Your task to perform on an android device: Show me popular videos on Youtube Image 0: 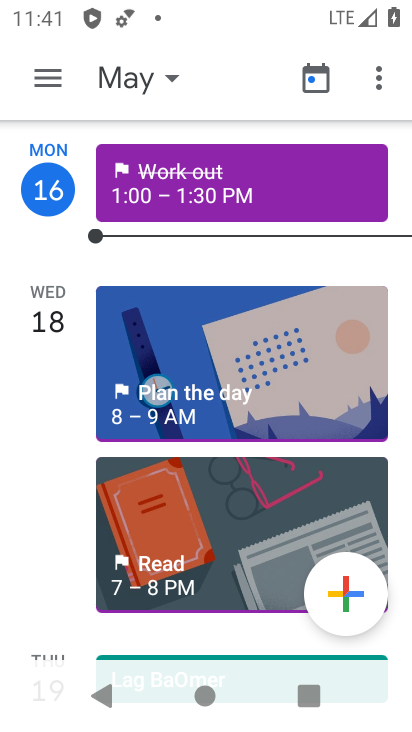
Step 0: press home button
Your task to perform on an android device: Show me popular videos on Youtube Image 1: 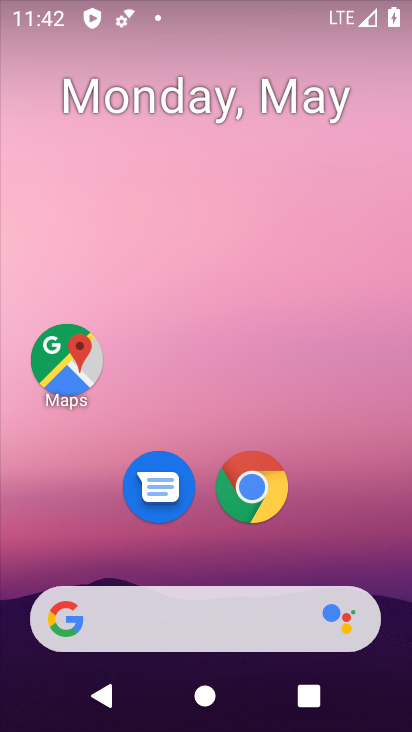
Step 1: drag from (84, 718) to (212, 120)
Your task to perform on an android device: Show me popular videos on Youtube Image 2: 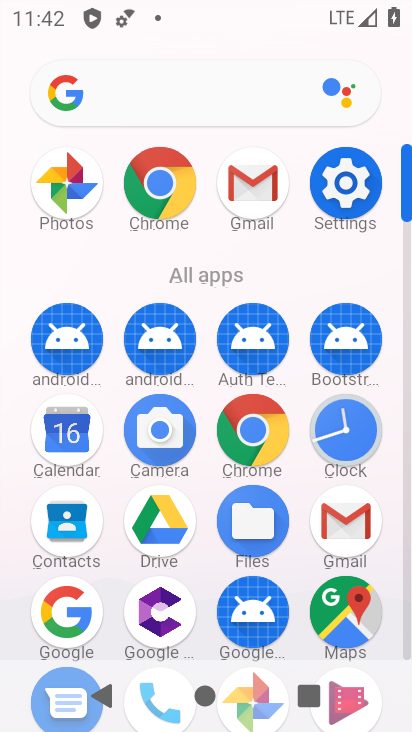
Step 2: drag from (8, 692) to (208, 114)
Your task to perform on an android device: Show me popular videos on Youtube Image 3: 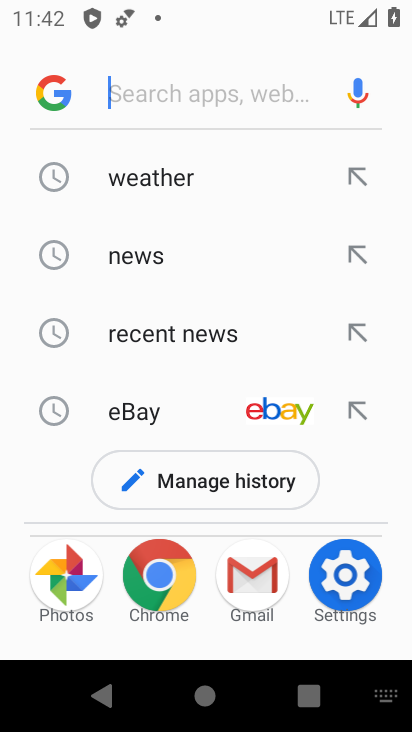
Step 3: press home button
Your task to perform on an android device: Show me popular videos on Youtube Image 4: 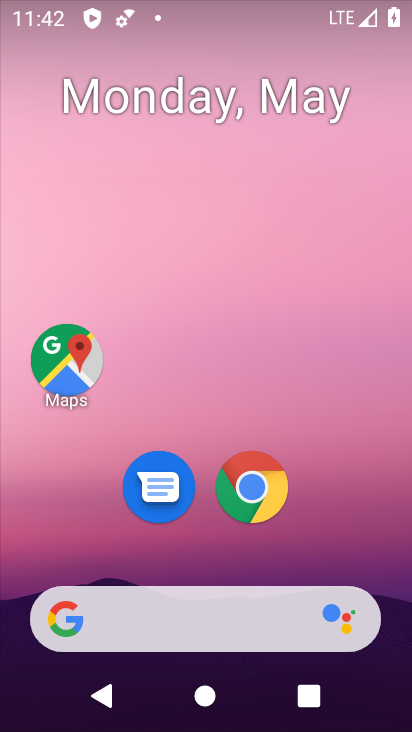
Step 4: drag from (40, 515) to (198, 161)
Your task to perform on an android device: Show me popular videos on Youtube Image 5: 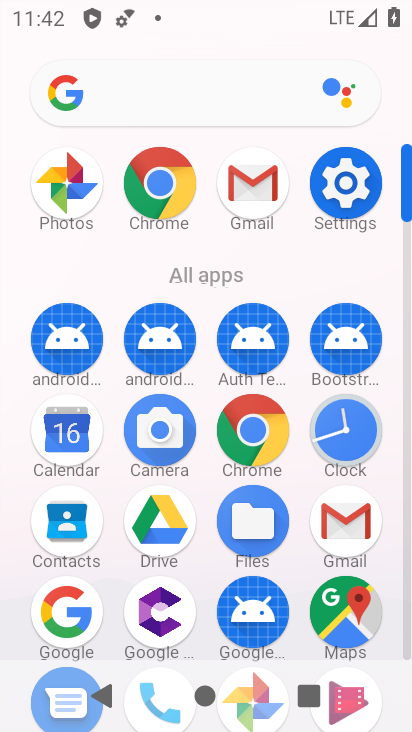
Step 5: drag from (1, 425) to (230, 206)
Your task to perform on an android device: Show me popular videos on Youtube Image 6: 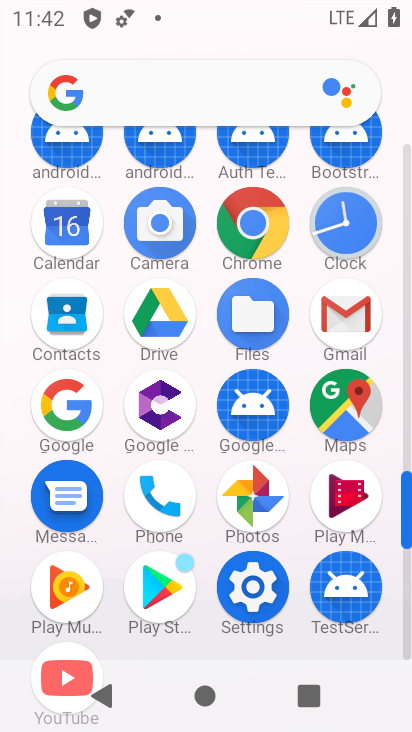
Step 6: click (64, 652)
Your task to perform on an android device: Show me popular videos on Youtube Image 7: 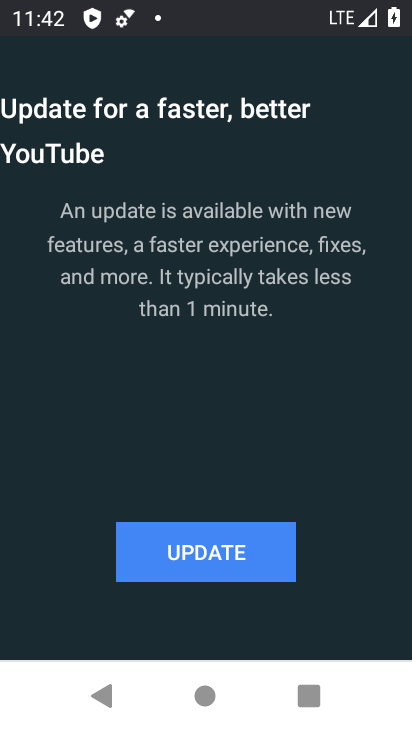
Step 7: task complete